Your task to perform on an android device: What's on my calendar today? Image 0: 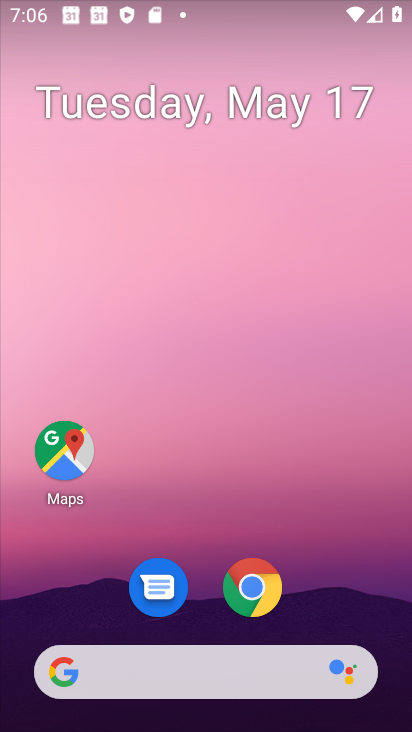
Step 0: drag from (263, 696) to (216, 155)
Your task to perform on an android device: What's on my calendar today? Image 1: 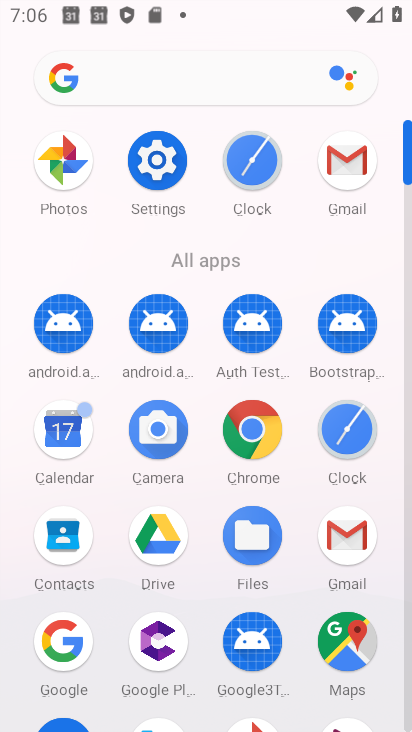
Step 1: click (76, 411)
Your task to perform on an android device: What's on my calendar today? Image 2: 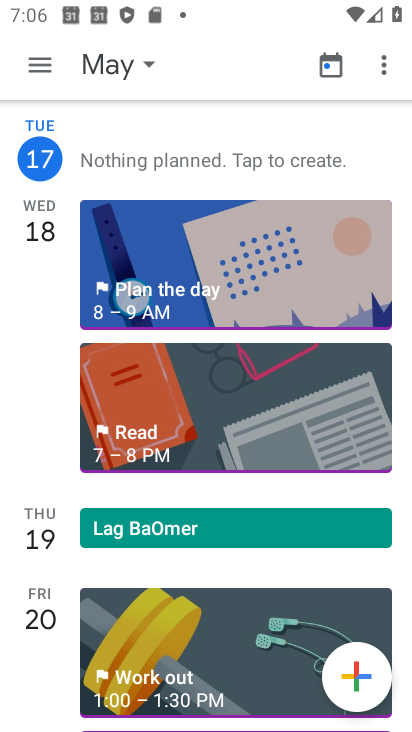
Step 2: click (27, 145)
Your task to perform on an android device: What's on my calendar today? Image 3: 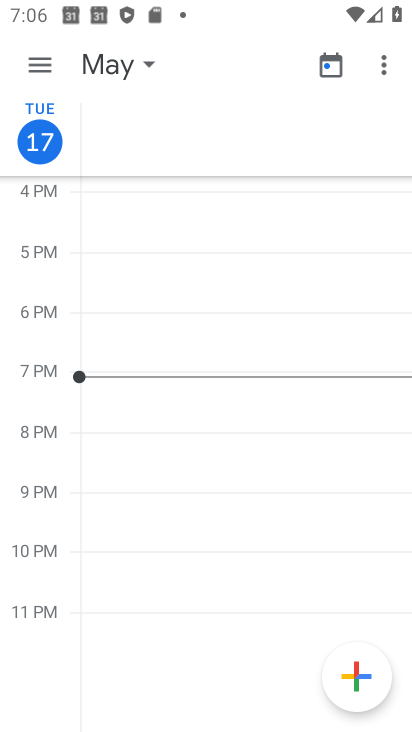
Step 3: task complete